Your task to perform on an android device: all mails in gmail Image 0: 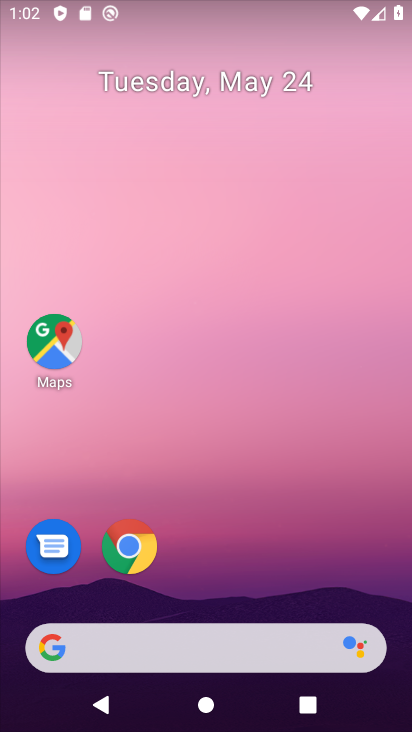
Step 0: drag from (206, 539) to (255, 211)
Your task to perform on an android device: all mails in gmail Image 1: 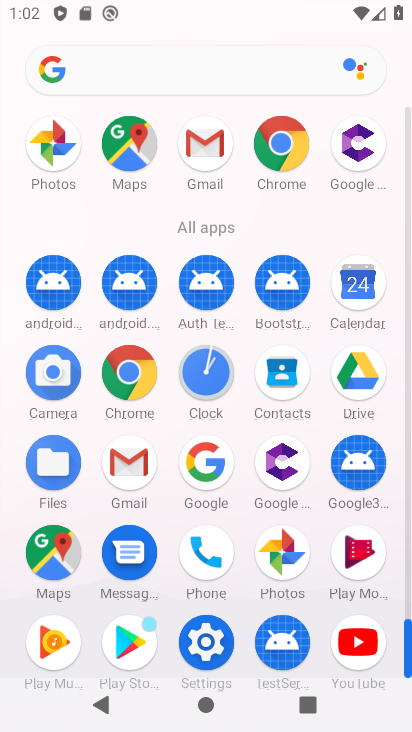
Step 1: click (128, 458)
Your task to perform on an android device: all mails in gmail Image 2: 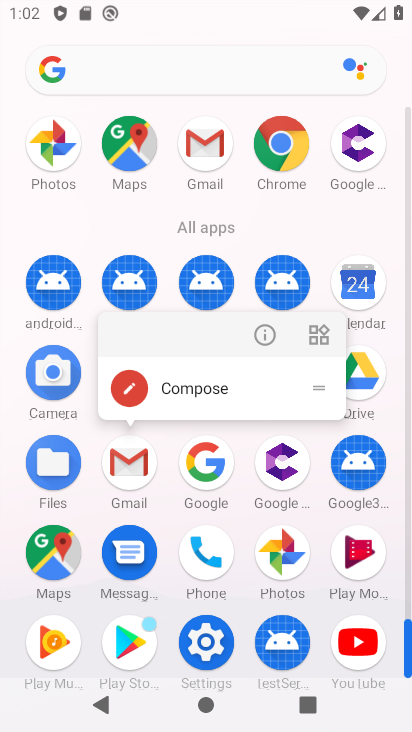
Step 2: click (260, 338)
Your task to perform on an android device: all mails in gmail Image 3: 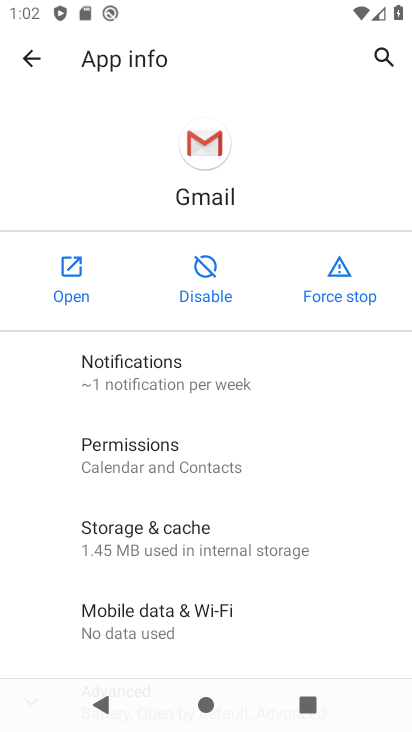
Step 3: click (67, 287)
Your task to perform on an android device: all mails in gmail Image 4: 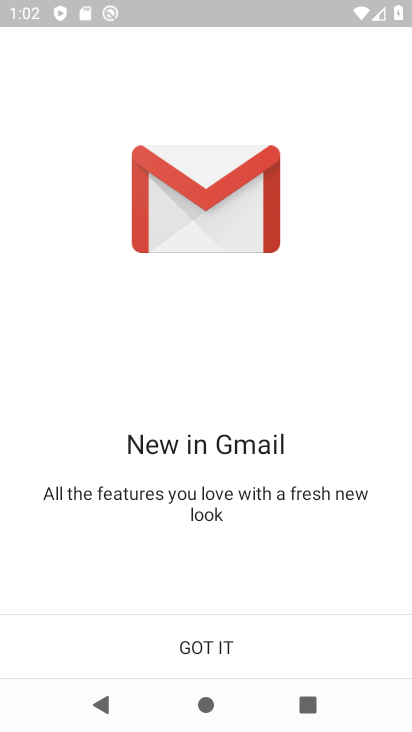
Step 4: click (197, 646)
Your task to perform on an android device: all mails in gmail Image 5: 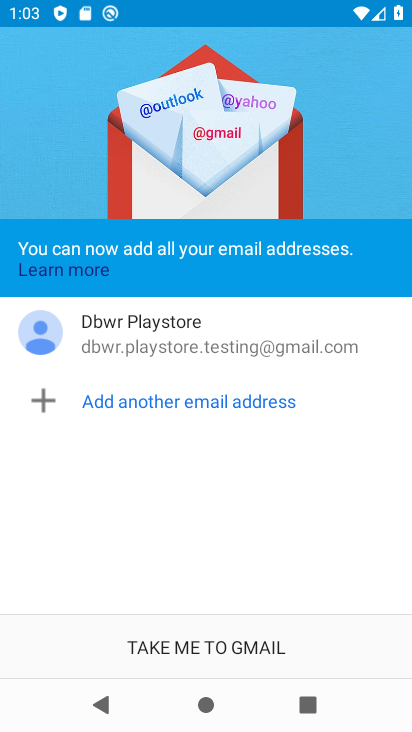
Step 5: click (186, 640)
Your task to perform on an android device: all mails in gmail Image 6: 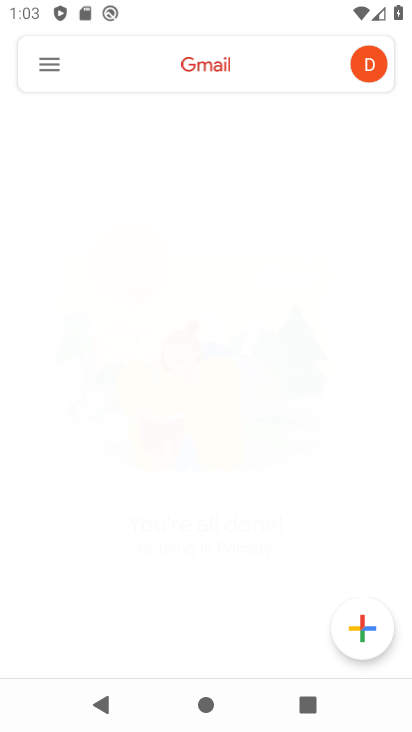
Step 6: click (48, 70)
Your task to perform on an android device: all mails in gmail Image 7: 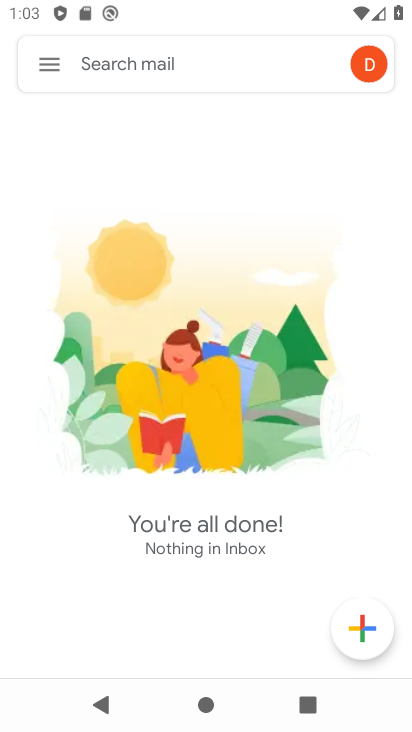
Step 7: click (49, 62)
Your task to perform on an android device: all mails in gmail Image 8: 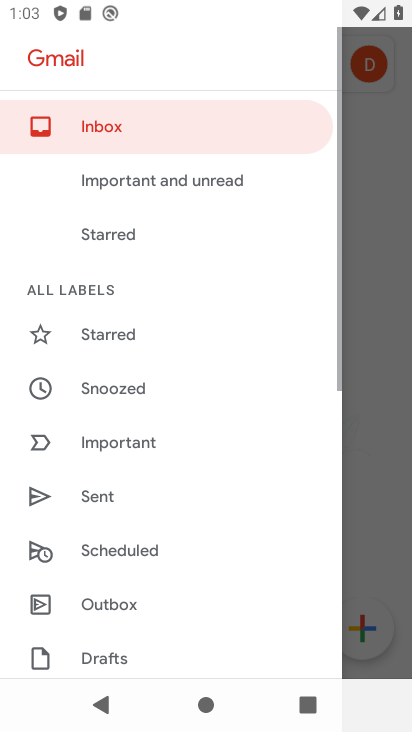
Step 8: drag from (168, 550) to (234, 142)
Your task to perform on an android device: all mails in gmail Image 9: 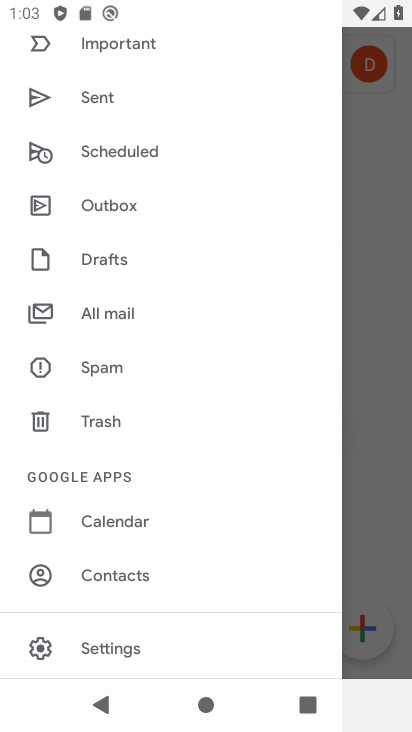
Step 9: click (68, 308)
Your task to perform on an android device: all mails in gmail Image 10: 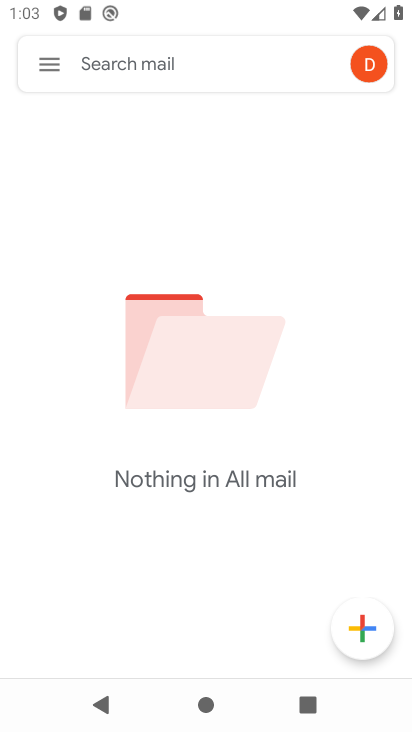
Step 10: task complete